Your task to perform on an android device: Do I have any events this weekend? Image 0: 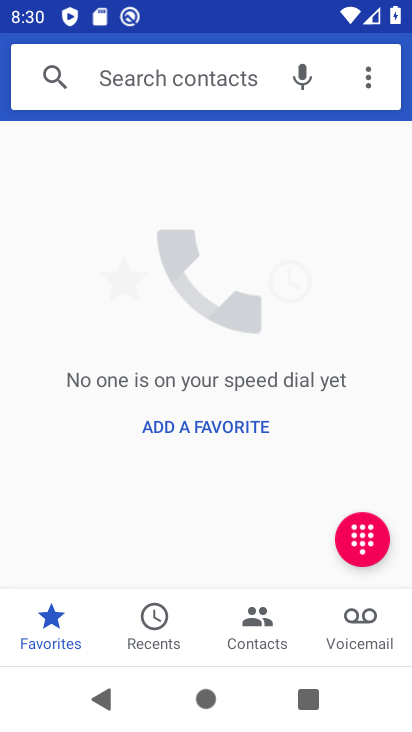
Step 0: press back button
Your task to perform on an android device: Do I have any events this weekend? Image 1: 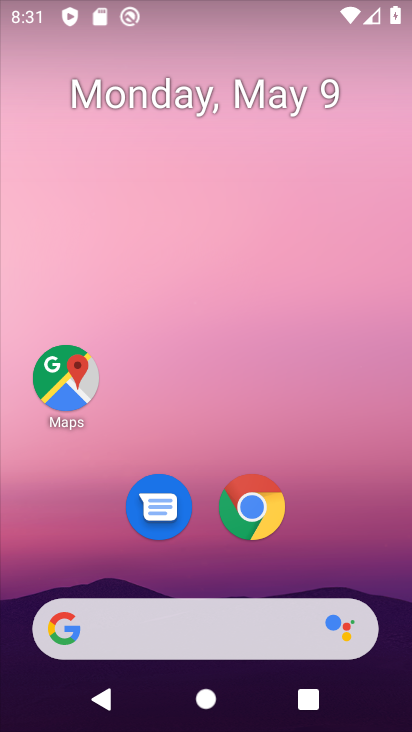
Step 1: drag from (328, 553) to (231, 44)
Your task to perform on an android device: Do I have any events this weekend? Image 2: 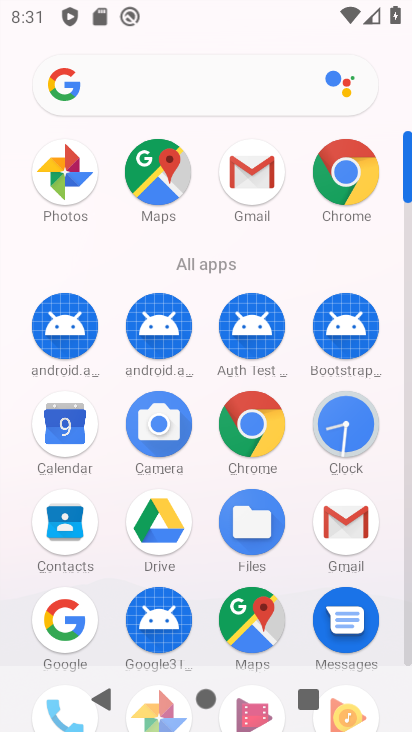
Step 2: drag from (205, 558) to (227, 259)
Your task to perform on an android device: Do I have any events this weekend? Image 3: 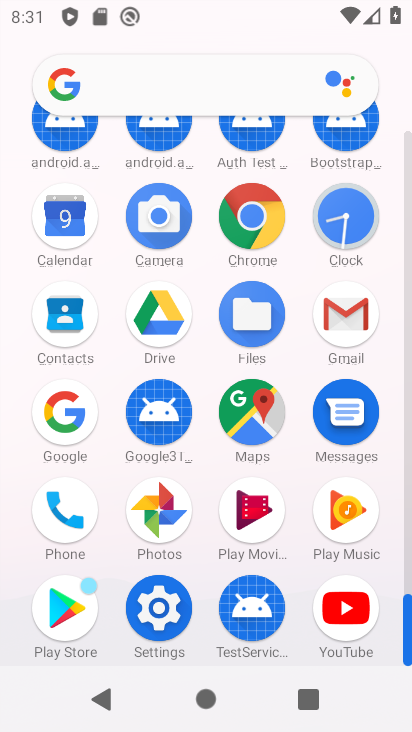
Step 3: click (69, 216)
Your task to perform on an android device: Do I have any events this weekend? Image 4: 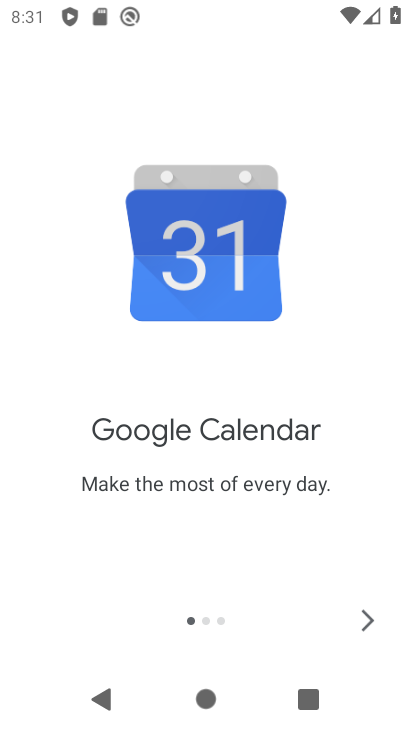
Step 4: click (373, 618)
Your task to perform on an android device: Do I have any events this weekend? Image 5: 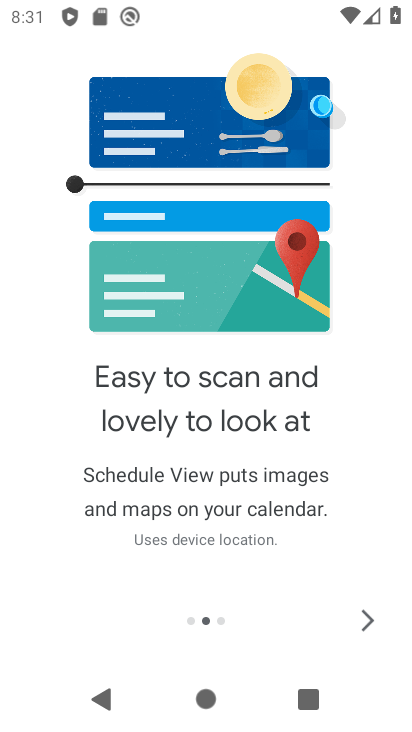
Step 5: click (373, 618)
Your task to perform on an android device: Do I have any events this weekend? Image 6: 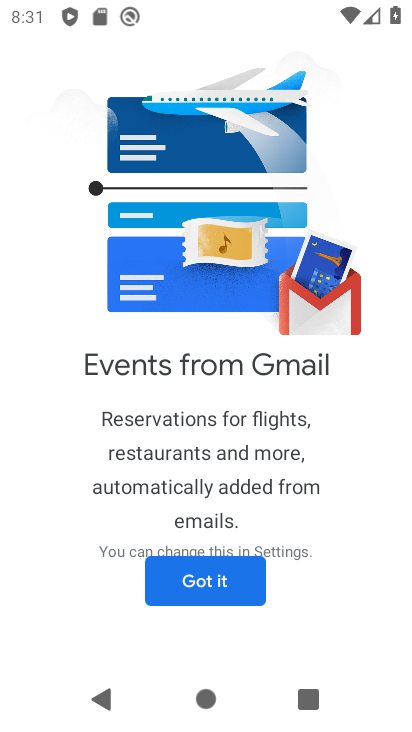
Step 6: click (204, 580)
Your task to perform on an android device: Do I have any events this weekend? Image 7: 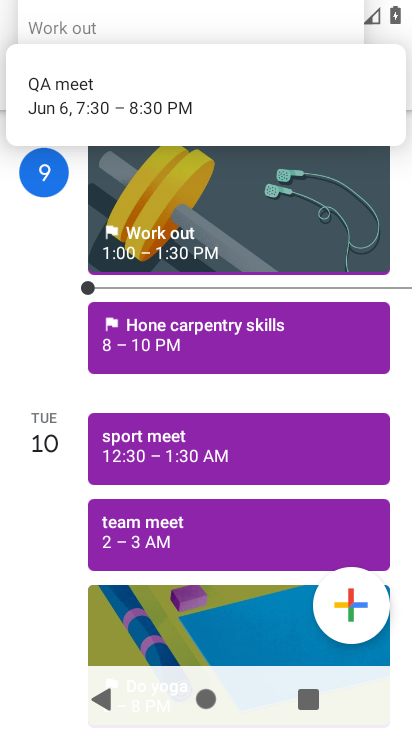
Step 7: click (173, 17)
Your task to perform on an android device: Do I have any events this weekend? Image 8: 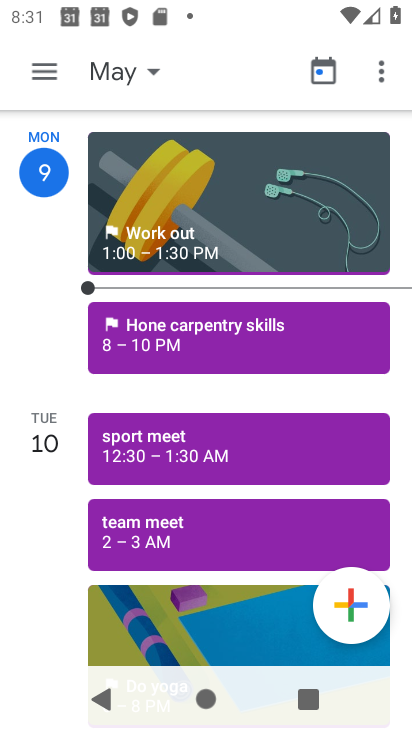
Step 8: click (141, 68)
Your task to perform on an android device: Do I have any events this weekend? Image 9: 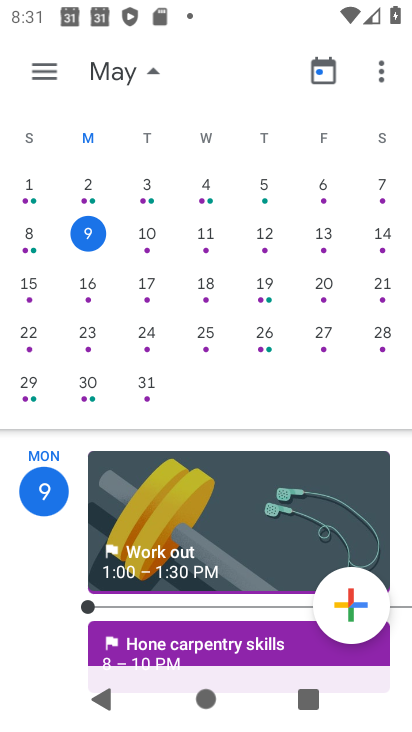
Step 9: click (387, 225)
Your task to perform on an android device: Do I have any events this weekend? Image 10: 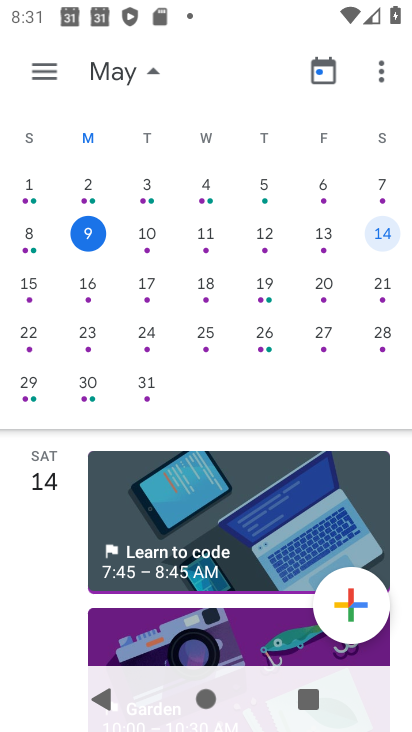
Step 10: task complete